Your task to perform on an android device: visit the assistant section in the google photos Image 0: 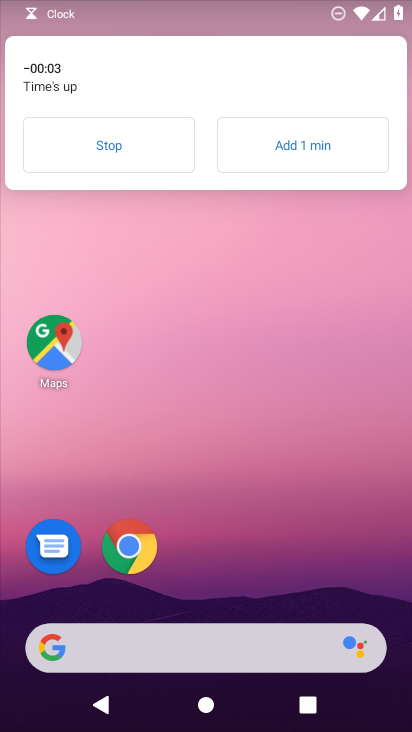
Step 0: click (163, 155)
Your task to perform on an android device: visit the assistant section in the google photos Image 1: 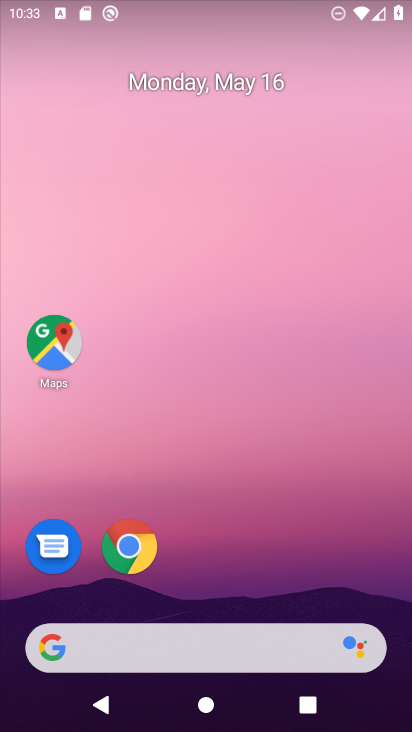
Step 1: drag from (200, 608) to (239, 139)
Your task to perform on an android device: visit the assistant section in the google photos Image 2: 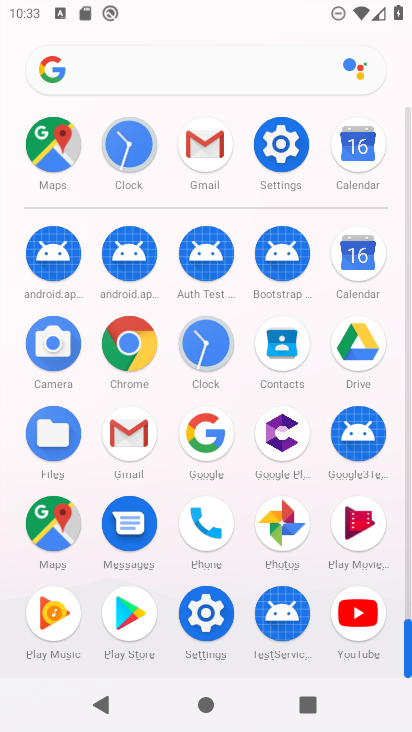
Step 2: click (281, 509)
Your task to perform on an android device: visit the assistant section in the google photos Image 3: 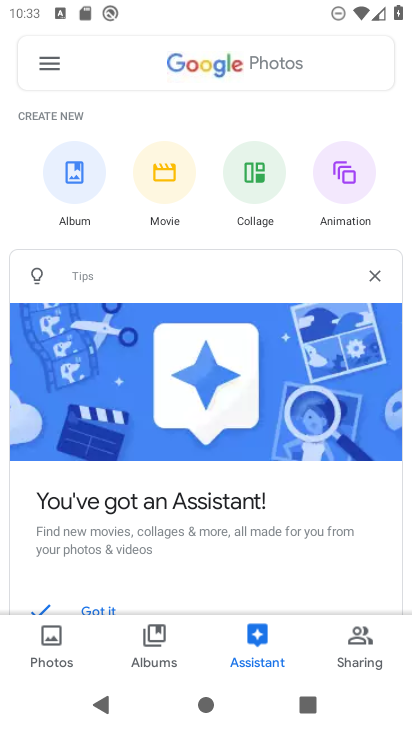
Step 3: click (256, 654)
Your task to perform on an android device: visit the assistant section in the google photos Image 4: 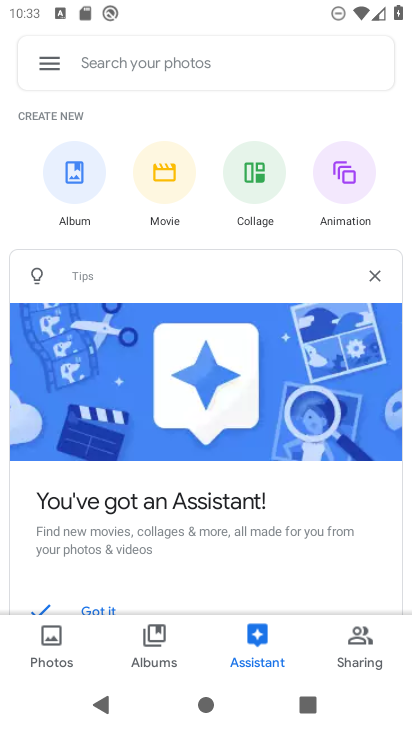
Step 4: task complete